Your task to perform on an android device: check storage Image 0: 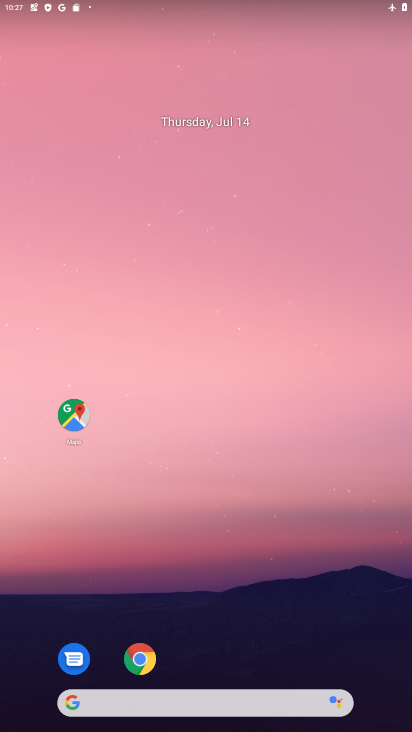
Step 0: drag from (276, 591) to (274, 131)
Your task to perform on an android device: check storage Image 1: 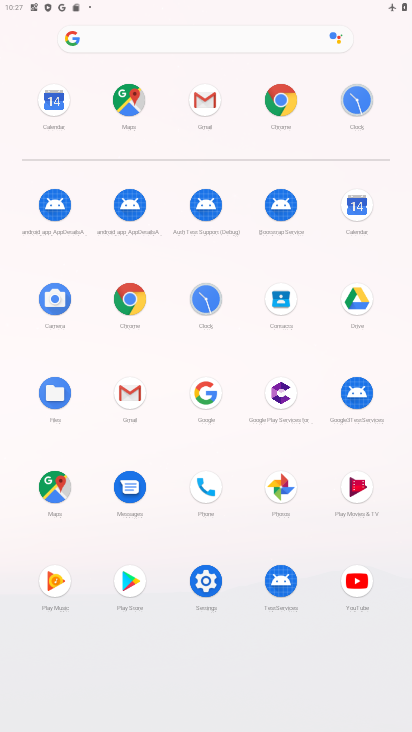
Step 1: click (198, 588)
Your task to perform on an android device: check storage Image 2: 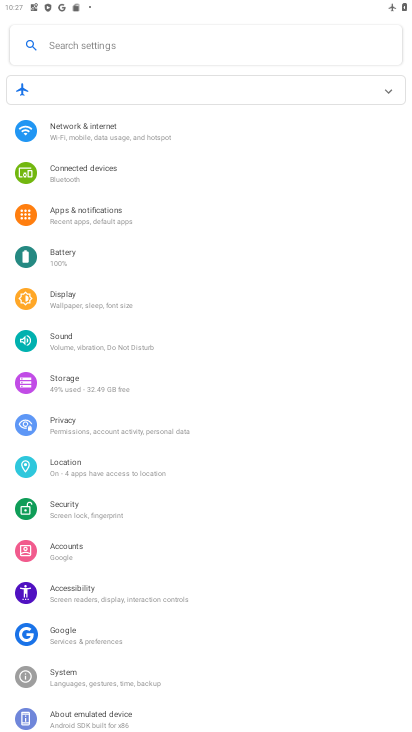
Step 2: click (128, 381)
Your task to perform on an android device: check storage Image 3: 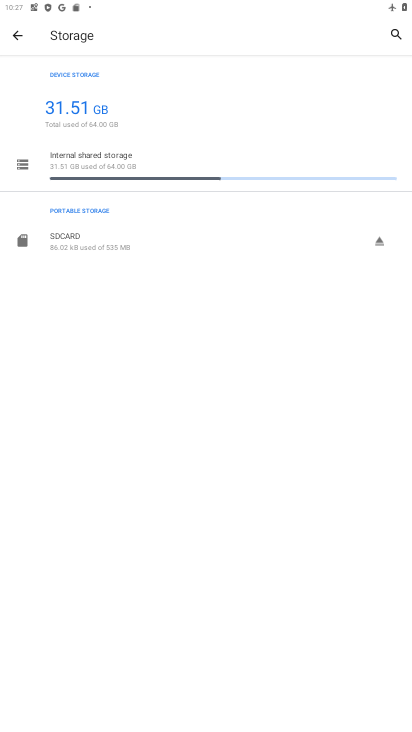
Step 3: task complete